Your task to perform on an android device: turn off picture-in-picture Image 0: 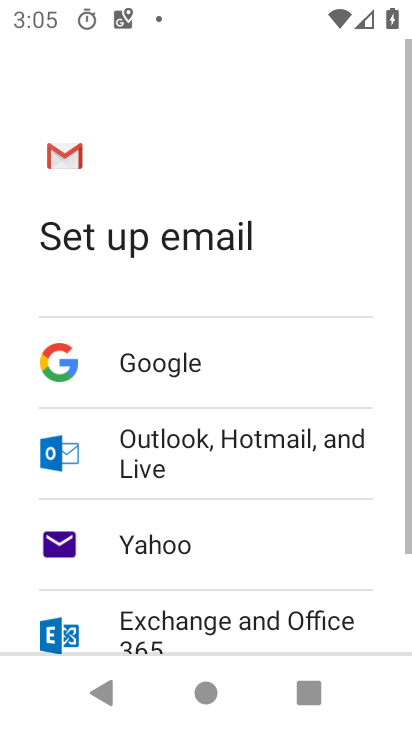
Step 0: drag from (223, 554) to (233, 287)
Your task to perform on an android device: turn off picture-in-picture Image 1: 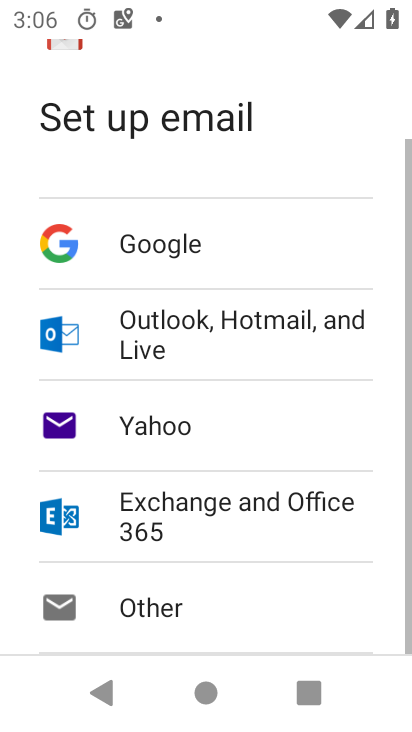
Step 1: drag from (179, 584) to (207, 351)
Your task to perform on an android device: turn off picture-in-picture Image 2: 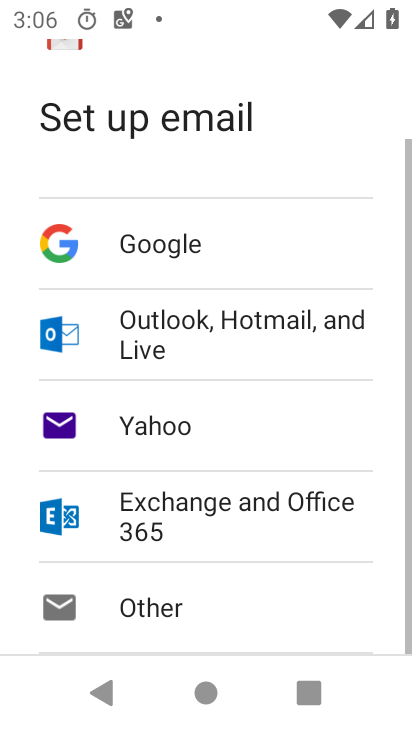
Step 2: press home button
Your task to perform on an android device: turn off picture-in-picture Image 3: 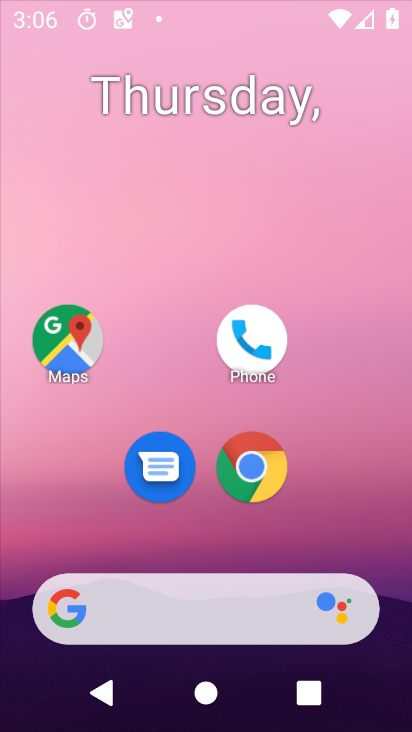
Step 3: drag from (182, 615) to (243, 196)
Your task to perform on an android device: turn off picture-in-picture Image 4: 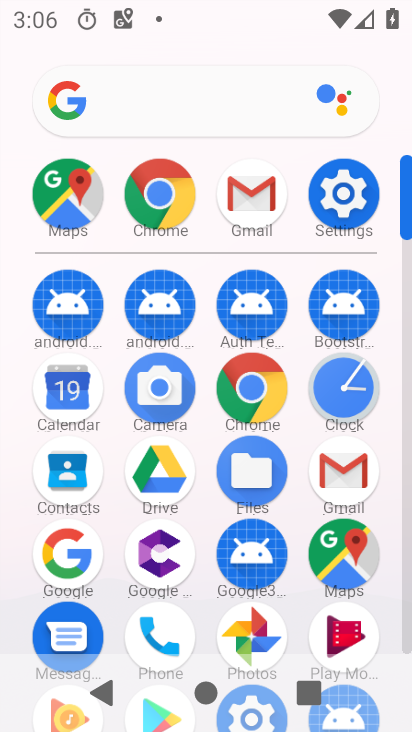
Step 4: drag from (214, 620) to (192, 398)
Your task to perform on an android device: turn off picture-in-picture Image 5: 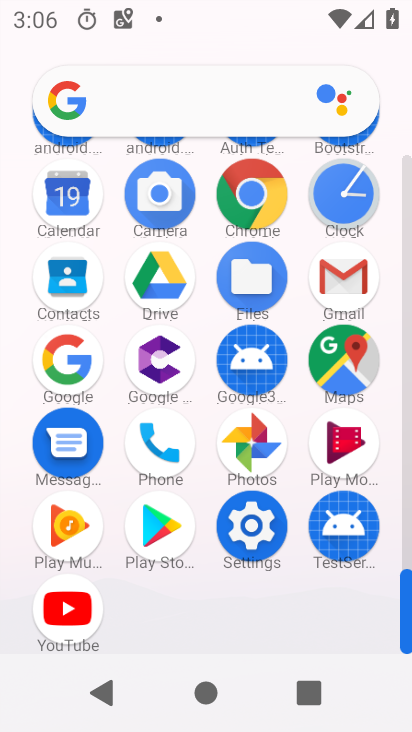
Step 5: click (270, 528)
Your task to perform on an android device: turn off picture-in-picture Image 6: 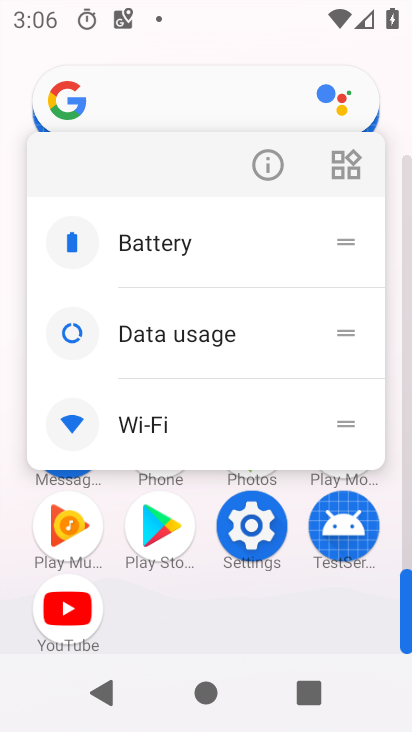
Step 6: click (273, 167)
Your task to perform on an android device: turn off picture-in-picture Image 7: 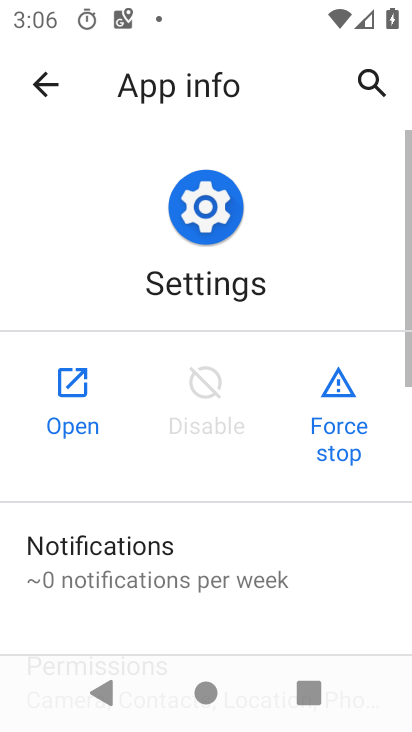
Step 7: click (87, 375)
Your task to perform on an android device: turn off picture-in-picture Image 8: 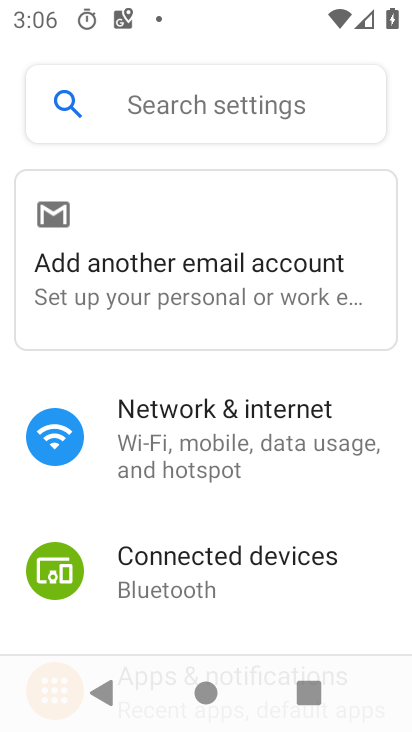
Step 8: drag from (244, 591) to (276, 80)
Your task to perform on an android device: turn off picture-in-picture Image 9: 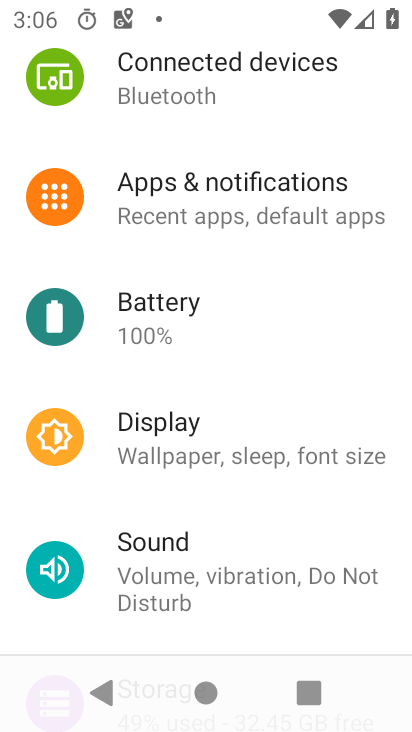
Step 9: drag from (229, 494) to (249, 83)
Your task to perform on an android device: turn off picture-in-picture Image 10: 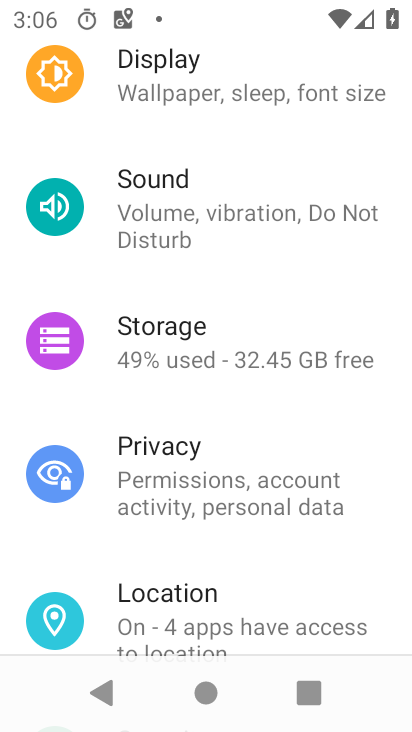
Step 10: drag from (205, 520) to (217, 191)
Your task to perform on an android device: turn off picture-in-picture Image 11: 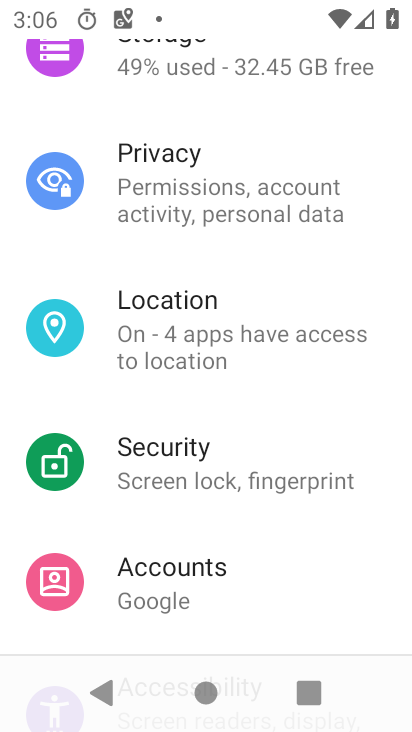
Step 11: drag from (181, 500) to (191, 148)
Your task to perform on an android device: turn off picture-in-picture Image 12: 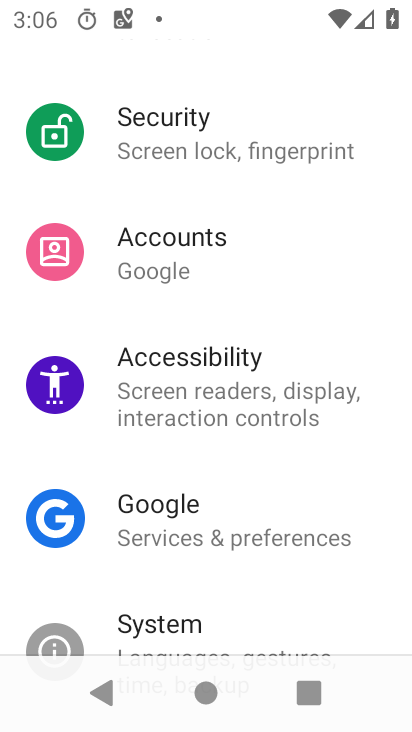
Step 12: drag from (190, 520) to (204, 180)
Your task to perform on an android device: turn off picture-in-picture Image 13: 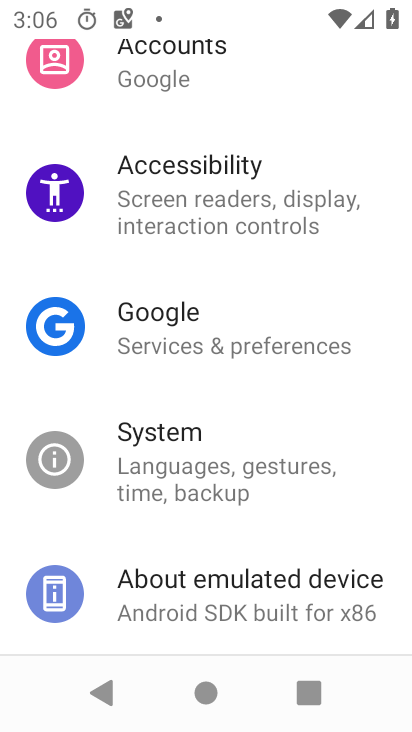
Step 13: drag from (232, 560) to (227, 194)
Your task to perform on an android device: turn off picture-in-picture Image 14: 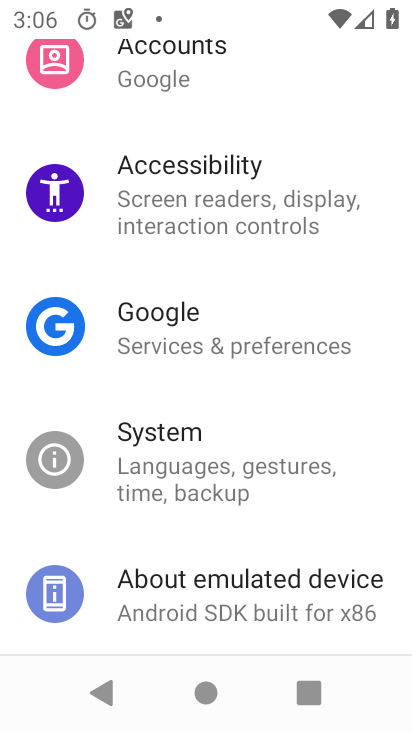
Step 14: drag from (222, 181) to (357, 726)
Your task to perform on an android device: turn off picture-in-picture Image 15: 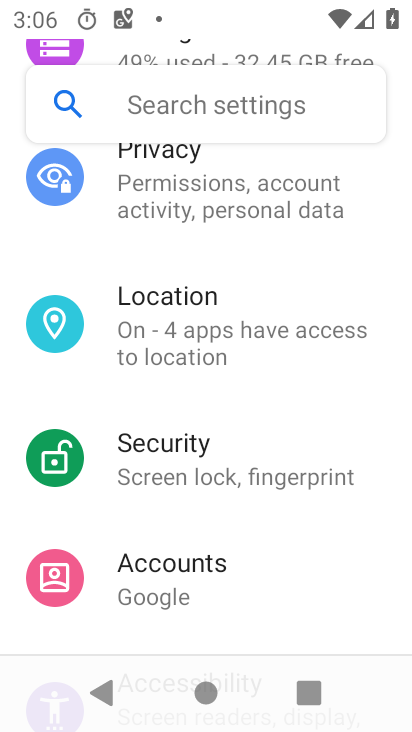
Step 15: drag from (230, 249) to (284, 648)
Your task to perform on an android device: turn off picture-in-picture Image 16: 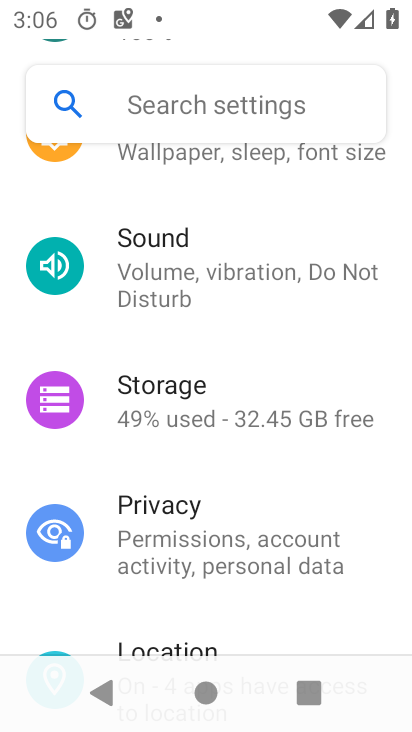
Step 16: drag from (225, 280) to (315, 706)
Your task to perform on an android device: turn off picture-in-picture Image 17: 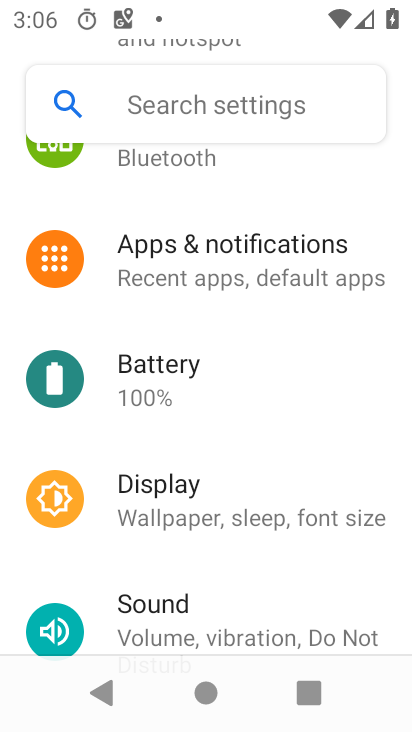
Step 17: click (211, 270)
Your task to perform on an android device: turn off picture-in-picture Image 18: 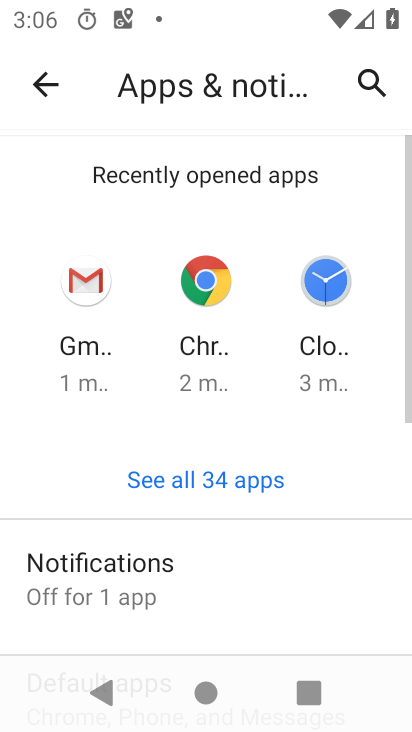
Step 18: drag from (202, 606) to (253, 257)
Your task to perform on an android device: turn off picture-in-picture Image 19: 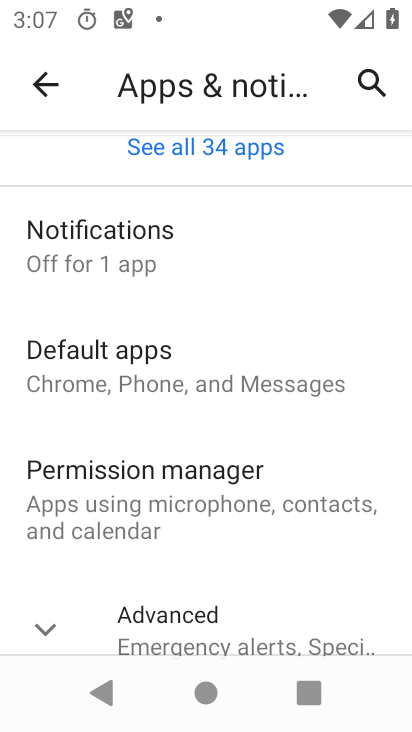
Step 19: drag from (208, 585) to (237, 300)
Your task to perform on an android device: turn off picture-in-picture Image 20: 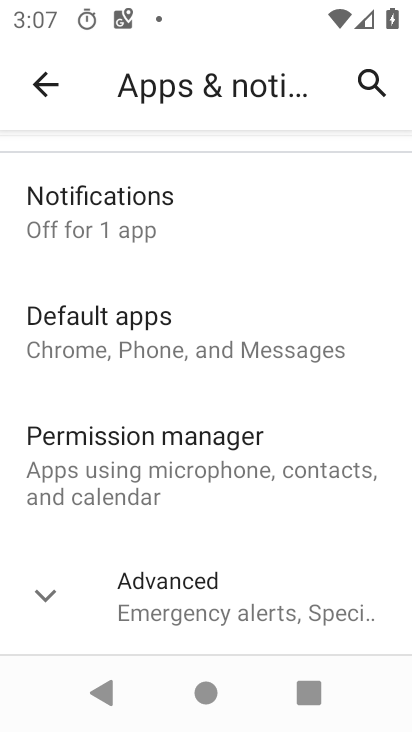
Step 20: click (200, 583)
Your task to perform on an android device: turn off picture-in-picture Image 21: 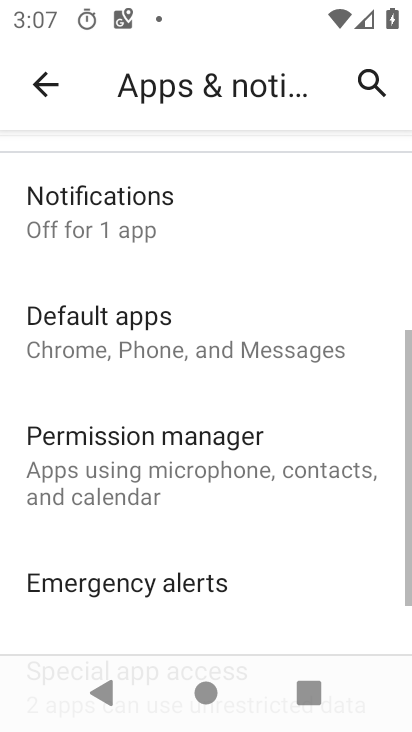
Step 21: drag from (220, 585) to (303, 209)
Your task to perform on an android device: turn off picture-in-picture Image 22: 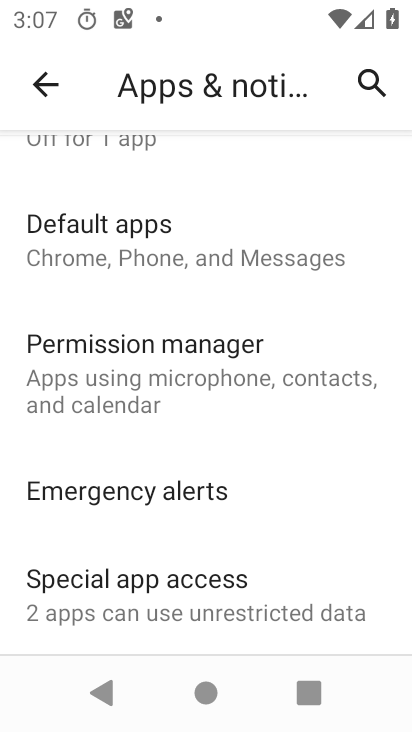
Step 22: click (181, 598)
Your task to perform on an android device: turn off picture-in-picture Image 23: 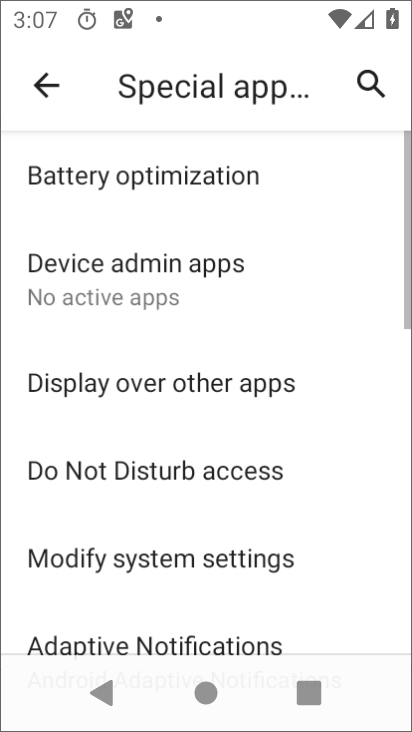
Step 23: drag from (181, 579) to (205, 274)
Your task to perform on an android device: turn off picture-in-picture Image 24: 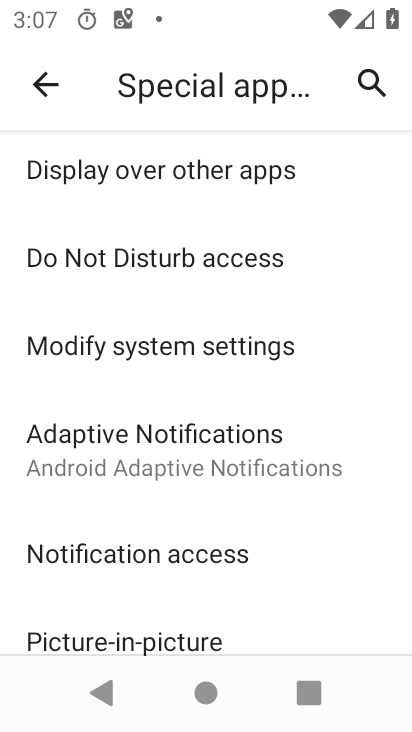
Step 24: drag from (207, 549) to (226, 269)
Your task to perform on an android device: turn off picture-in-picture Image 25: 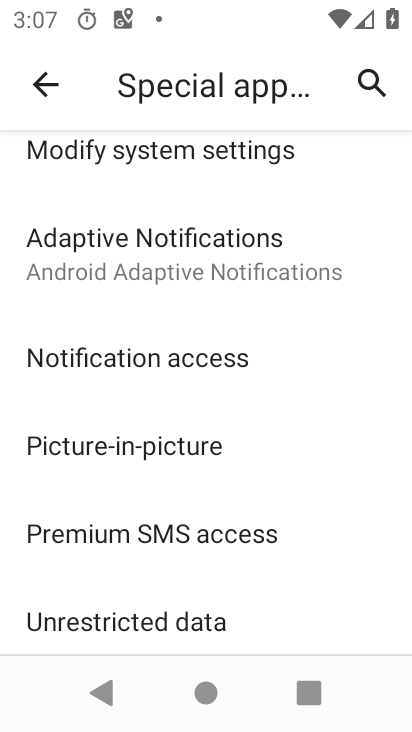
Step 25: click (155, 460)
Your task to perform on an android device: turn off picture-in-picture Image 26: 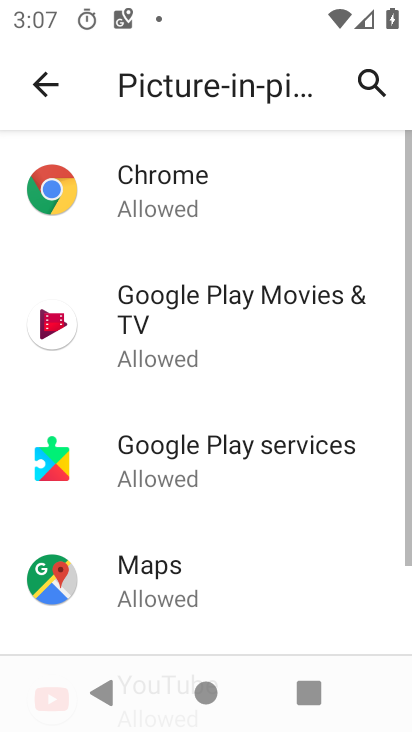
Step 26: task complete